Your task to perform on an android device: open app "Google Maps" Image 0: 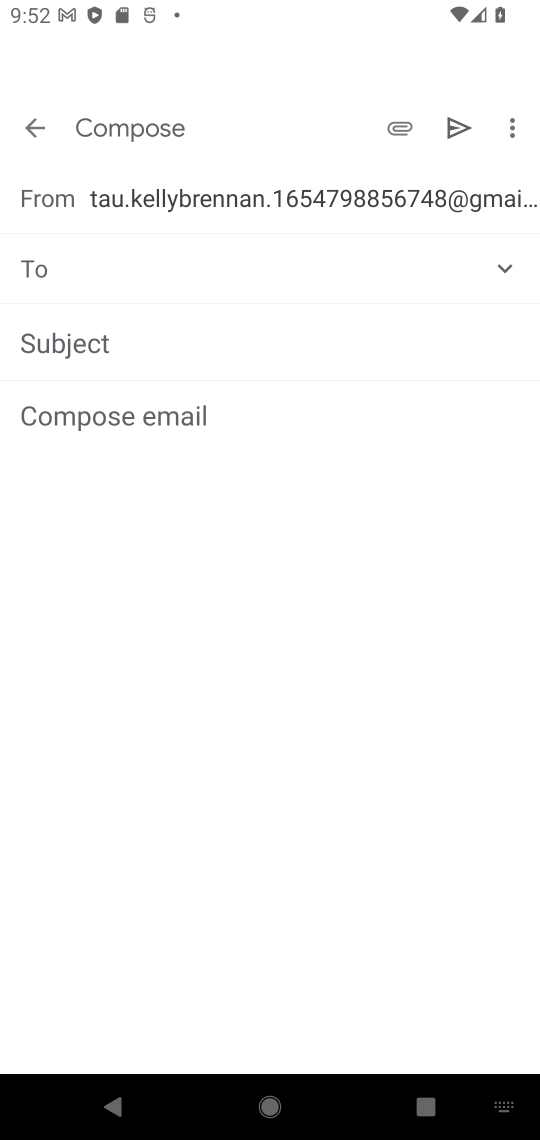
Step 0: press home button
Your task to perform on an android device: open app "Google Maps" Image 1: 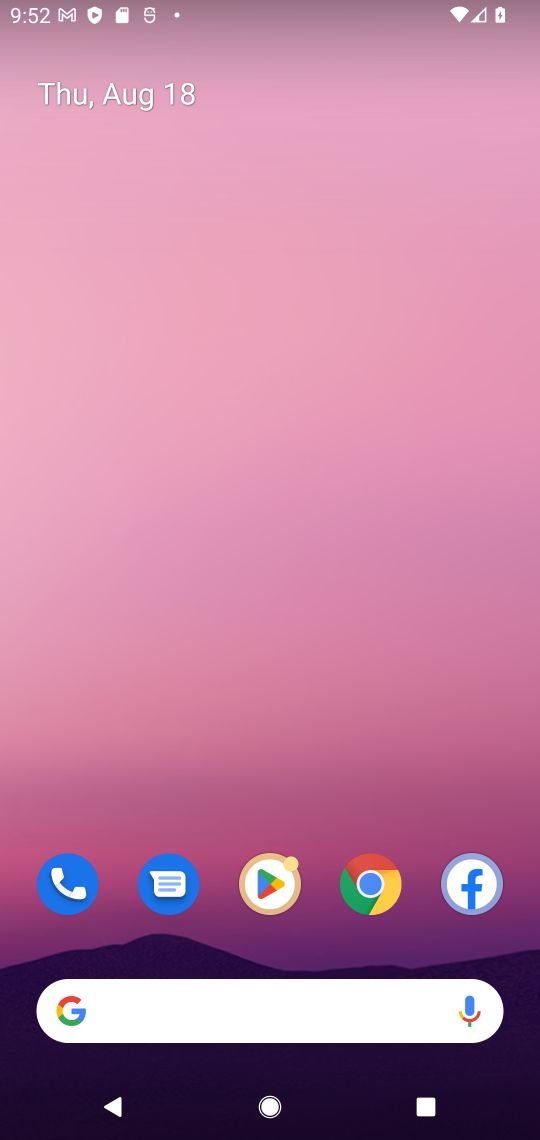
Step 1: drag from (321, 960) to (253, 140)
Your task to perform on an android device: open app "Google Maps" Image 2: 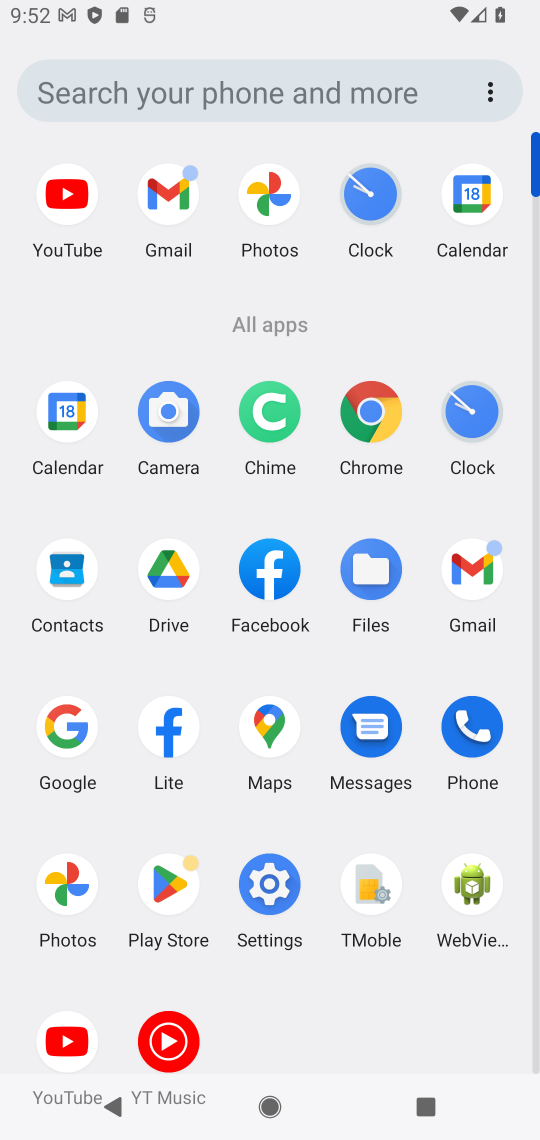
Step 2: click (283, 710)
Your task to perform on an android device: open app "Google Maps" Image 3: 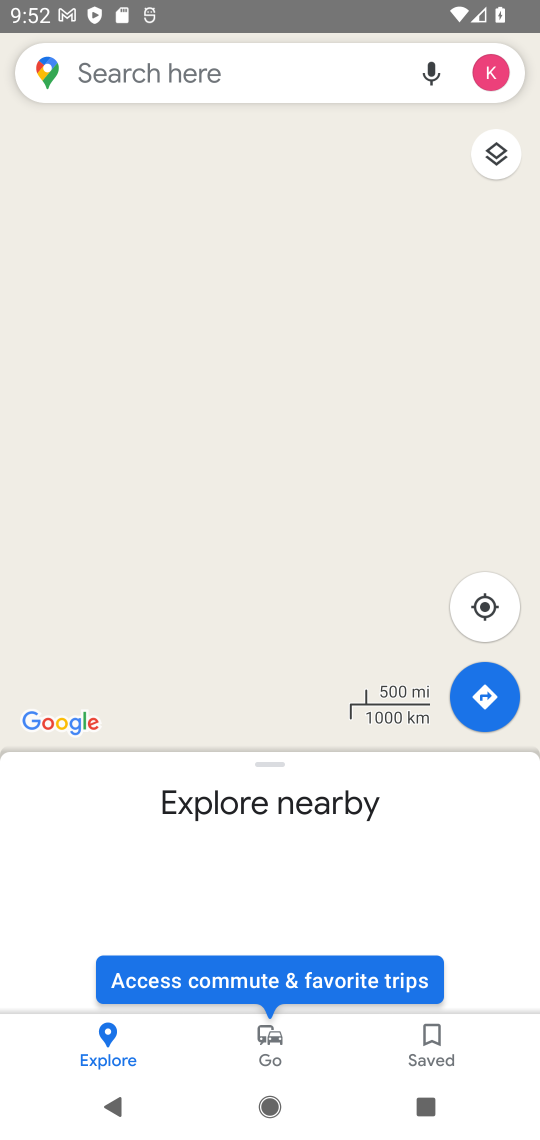
Step 3: task complete